Your task to perform on an android device: Go to Google Image 0: 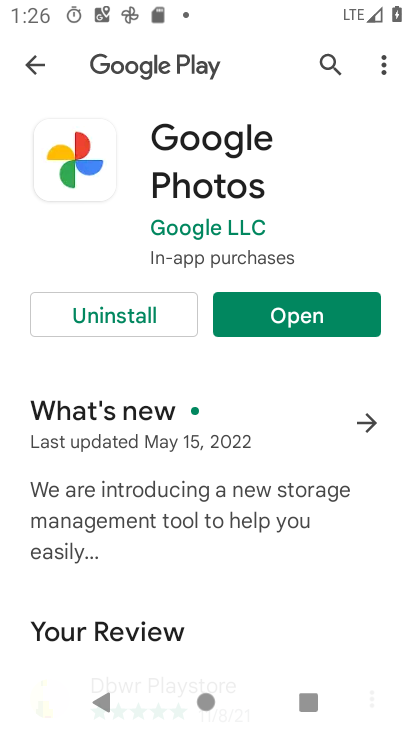
Step 0: press home button
Your task to perform on an android device: Go to Google Image 1: 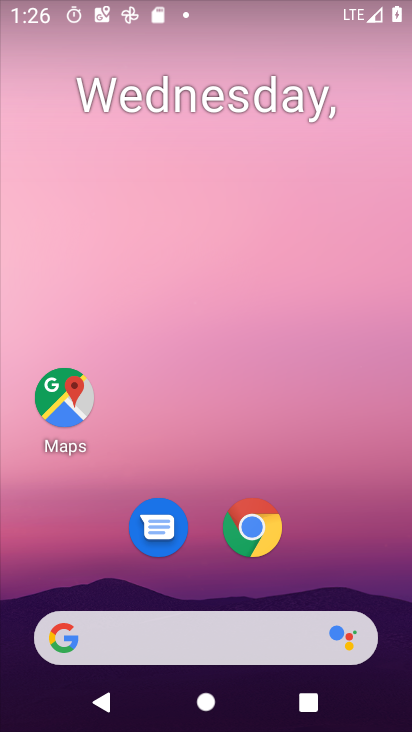
Step 1: drag from (106, 639) to (209, 93)
Your task to perform on an android device: Go to Google Image 2: 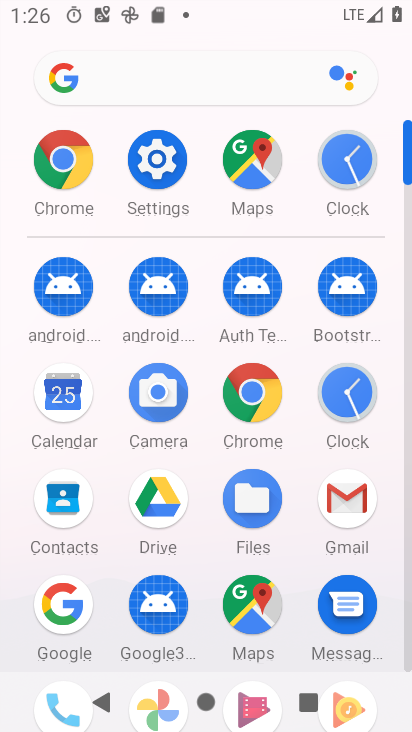
Step 2: click (242, 391)
Your task to perform on an android device: Go to Google Image 3: 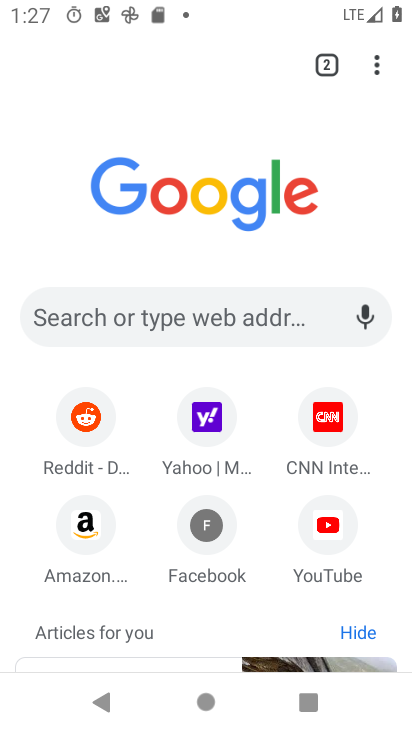
Step 3: task complete